Your task to perform on an android device: check storage Image 0: 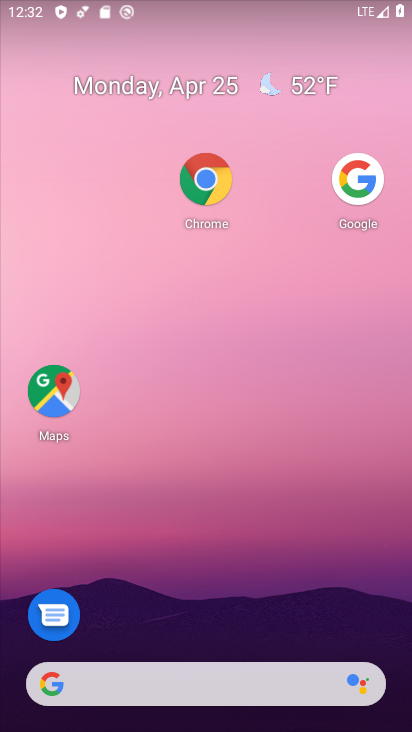
Step 0: drag from (202, 668) to (321, 124)
Your task to perform on an android device: check storage Image 1: 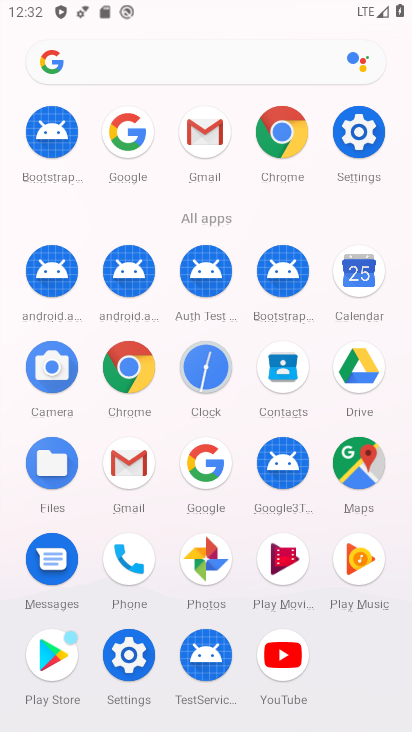
Step 1: click (352, 140)
Your task to perform on an android device: check storage Image 2: 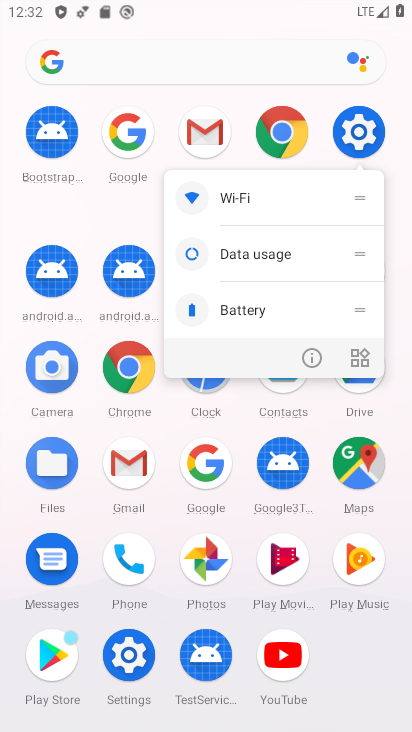
Step 2: click (362, 141)
Your task to perform on an android device: check storage Image 3: 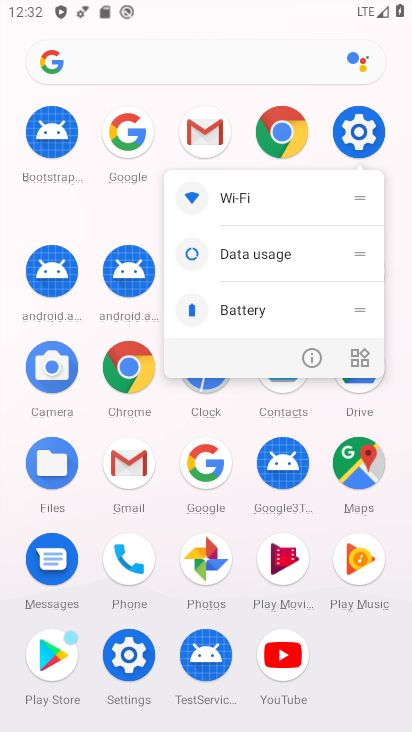
Step 3: click (361, 135)
Your task to perform on an android device: check storage Image 4: 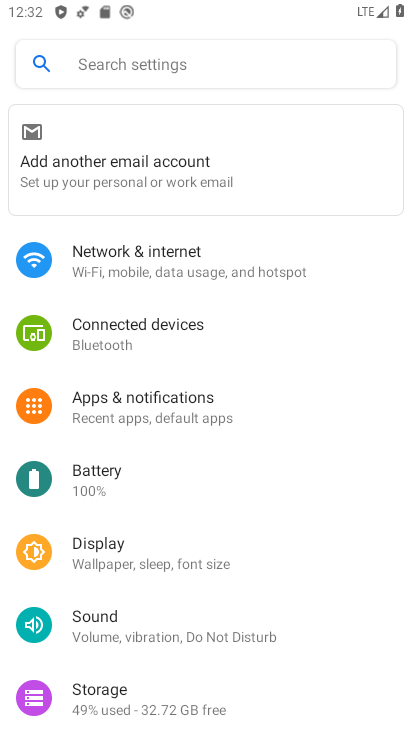
Step 4: click (132, 700)
Your task to perform on an android device: check storage Image 5: 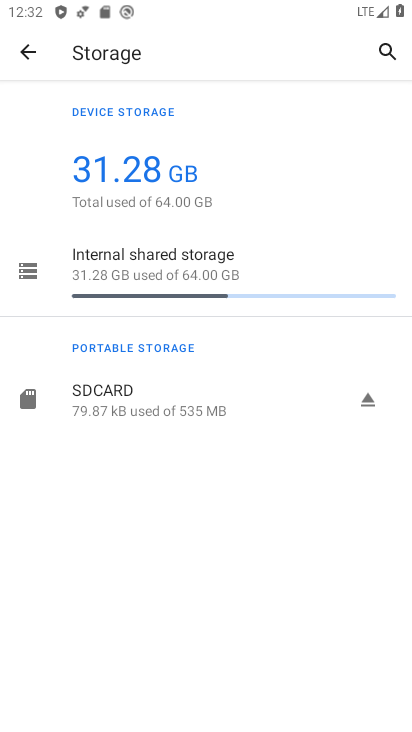
Step 5: task complete